Your task to perform on an android device: Open Google Image 0: 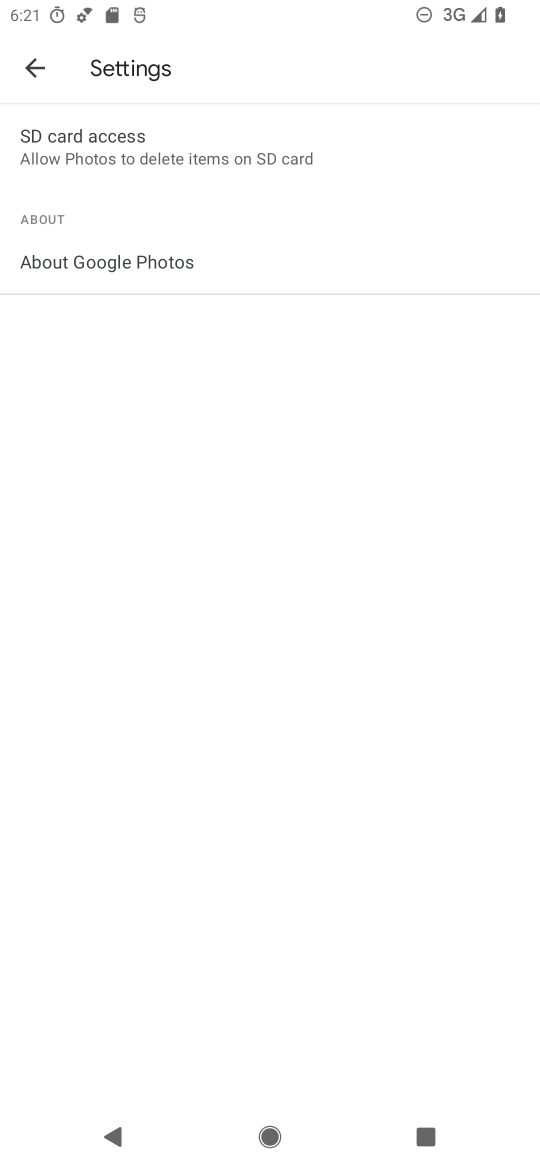
Step 0: press home button
Your task to perform on an android device: Open Google Image 1: 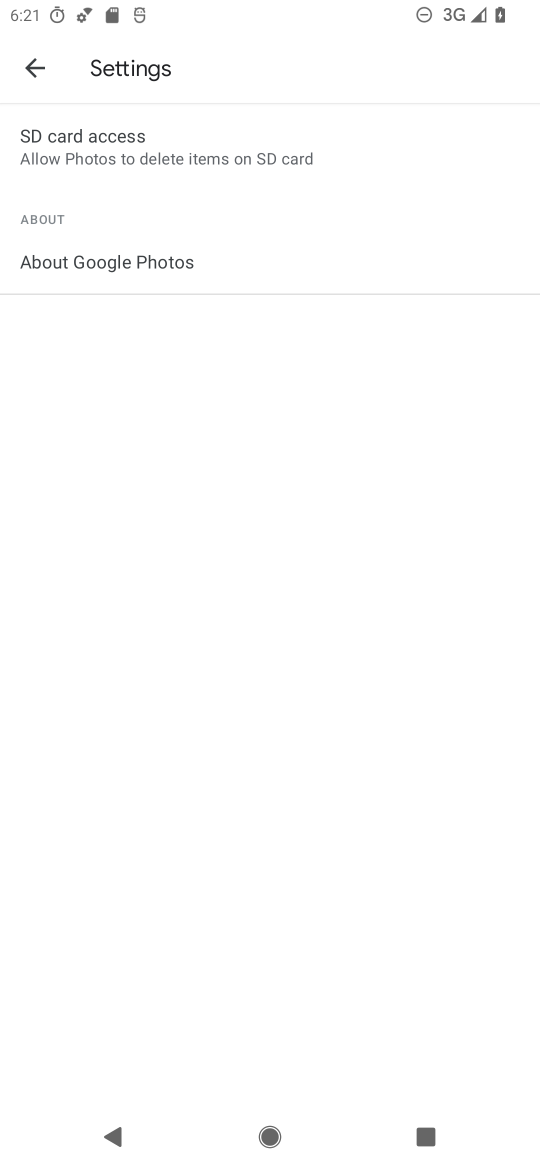
Step 1: press home button
Your task to perform on an android device: Open Google Image 2: 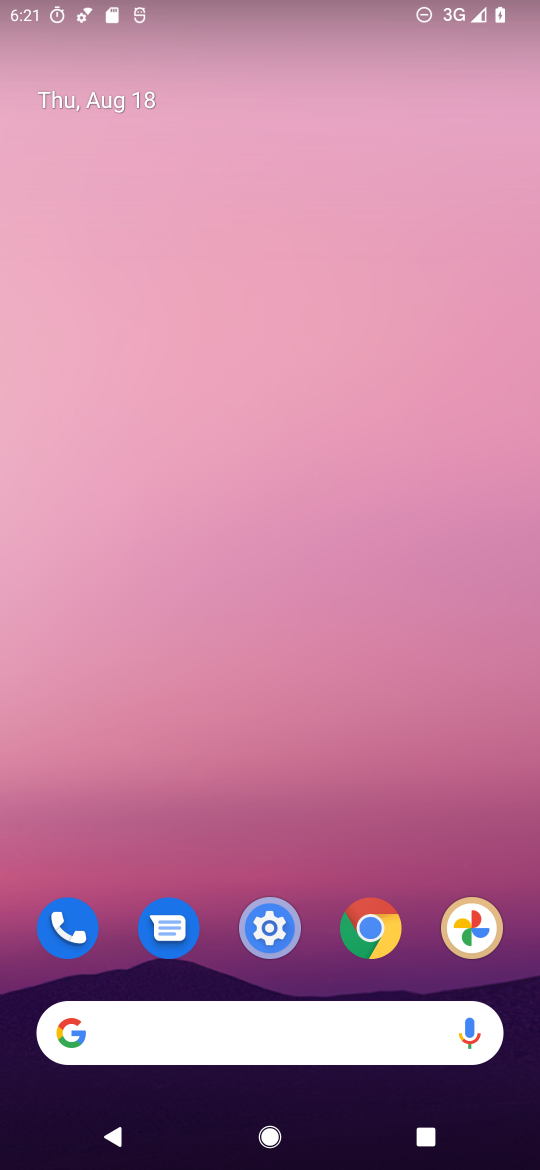
Step 2: drag from (404, 570) to (434, 6)
Your task to perform on an android device: Open Google Image 3: 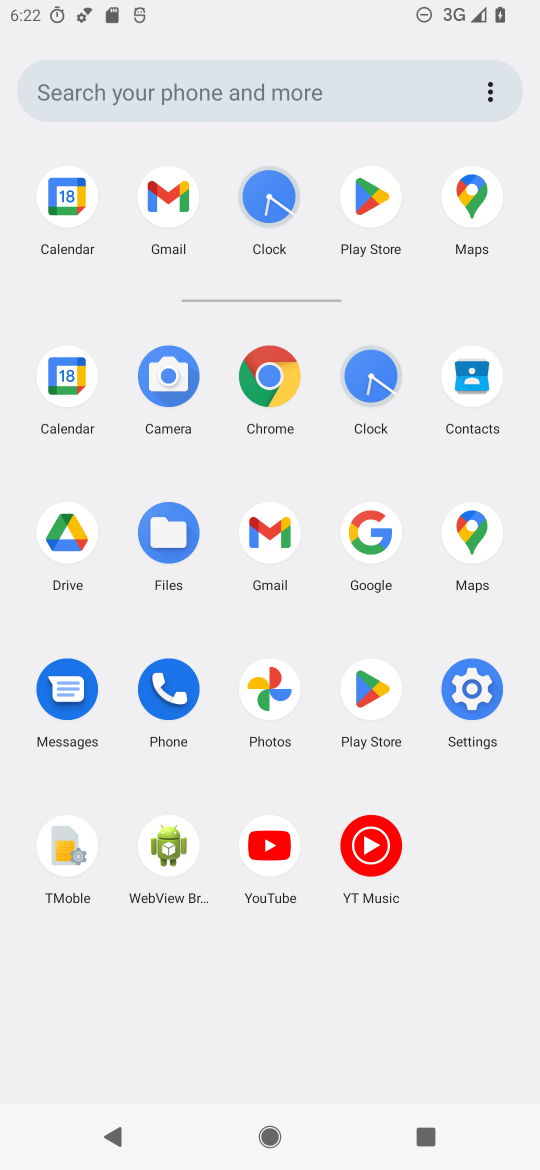
Step 3: click (371, 535)
Your task to perform on an android device: Open Google Image 4: 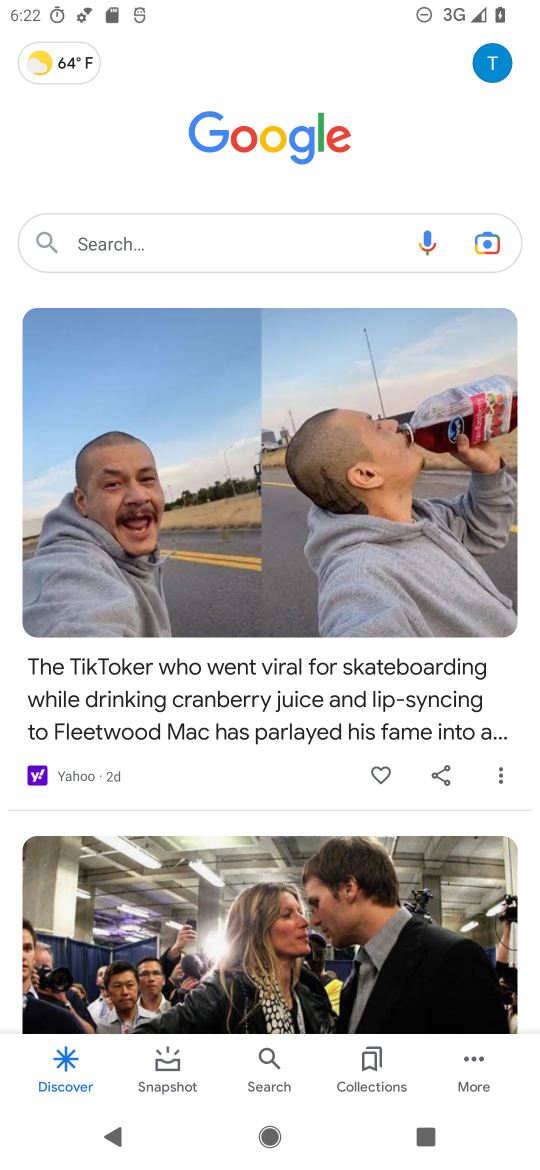
Step 4: task complete